Your task to perform on an android device: Open privacy settings Image 0: 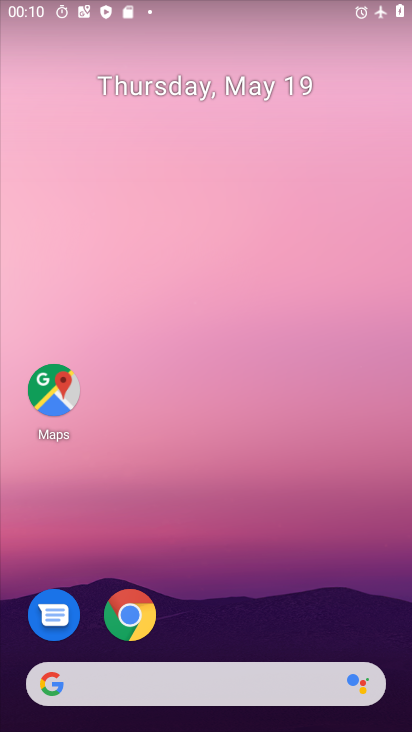
Step 0: drag from (45, 452) to (258, 96)
Your task to perform on an android device: Open privacy settings Image 1: 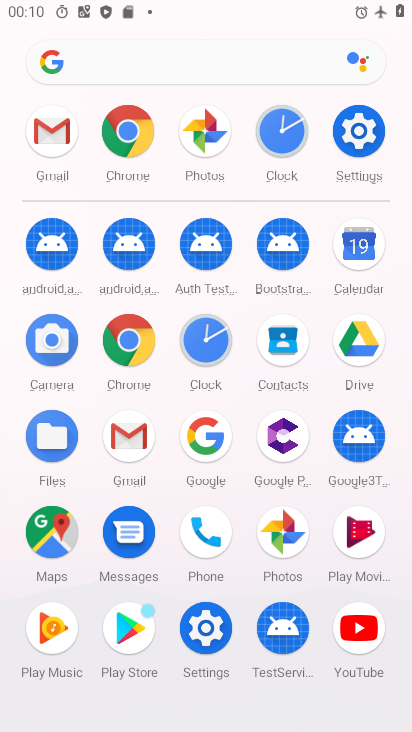
Step 1: click (354, 137)
Your task to perform on an android device: Open privacy settings Image 2: 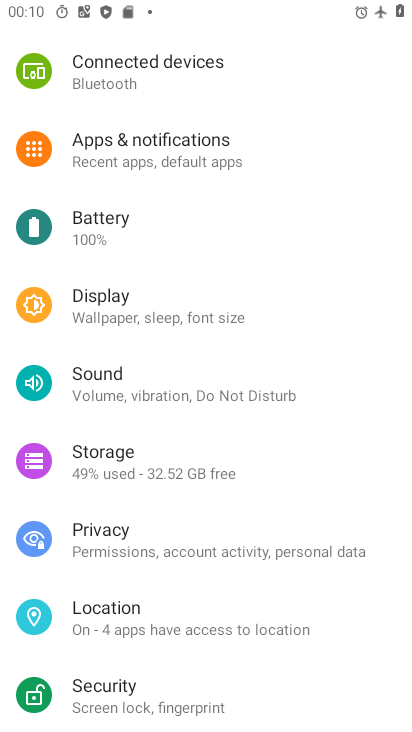
Step 2: click (128, 544)
Your task to perform on an android device: Open privacy settings Image 3: 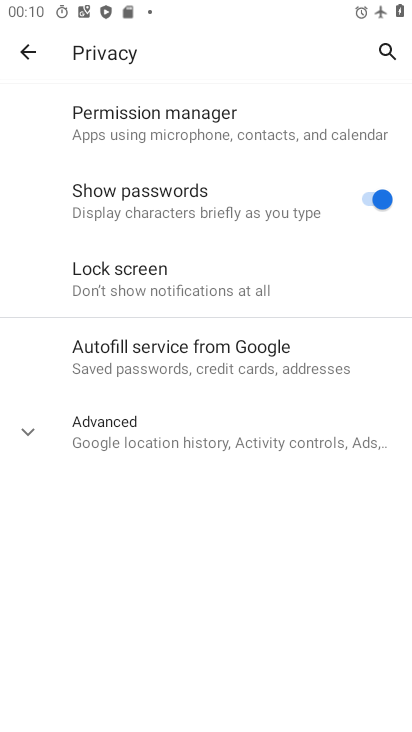
Step 3: task complete